Your task to perform on an android device: delete a single message in the gmail app Image 0: 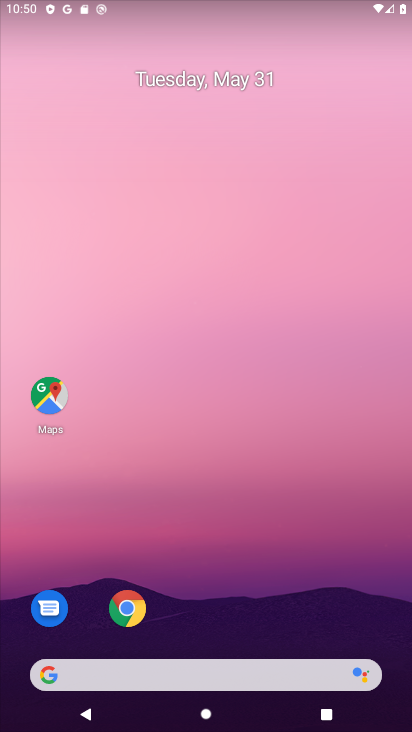
Step 0: drag from (335, 635) to (271, 119)
Your task to perform on an android device: delete a single message in the gmail app Image 1: 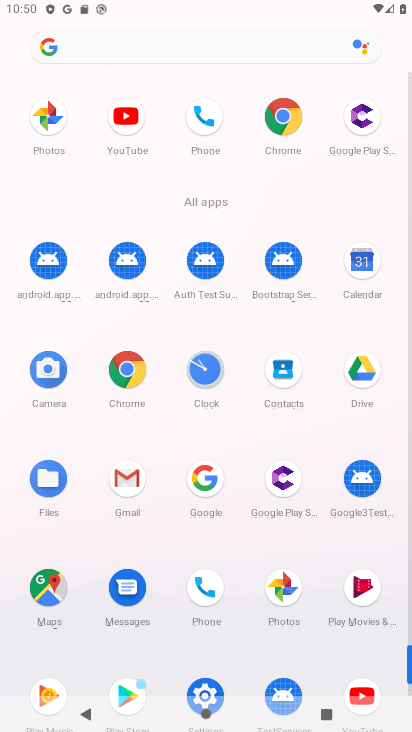
Step 1: click (120, 484)
Your task to perform on an android device: delete a single message in the gmail app Image 2: 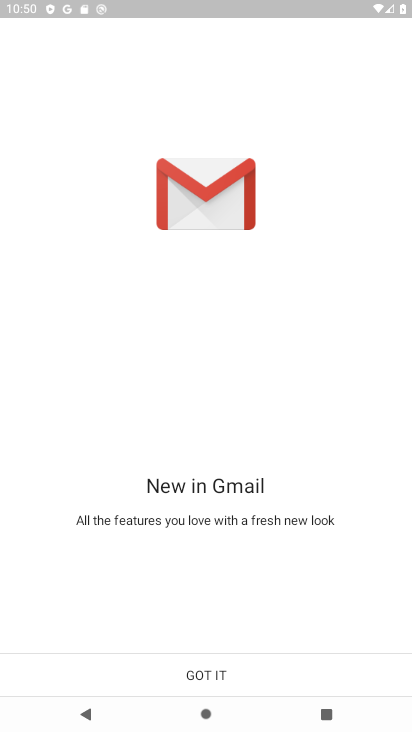
Step 2: click (162, 661)
Your task to perform on an android device: delete a single message in the gmail app Image 3: 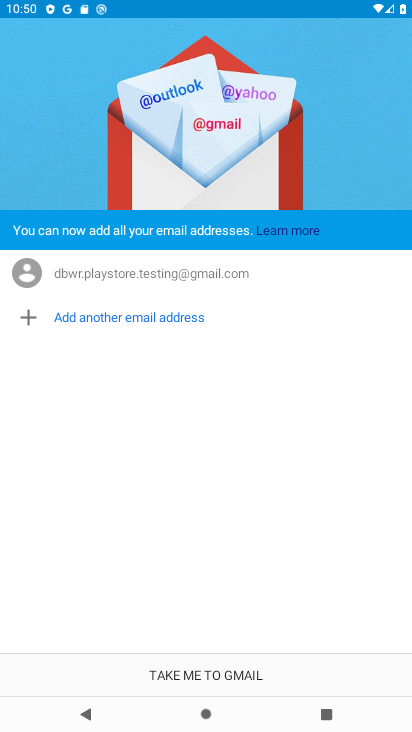
Step 3: click (162, 661)
Your task to perform on an android device: delete a single message in the gmail app Image 4: 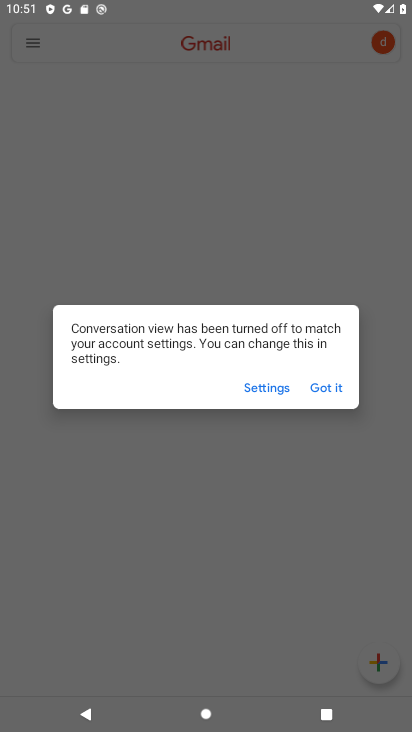
Step 4: click (324, 391)
Your task to perform on an android device: delete a single message in the gmail app Image 5: 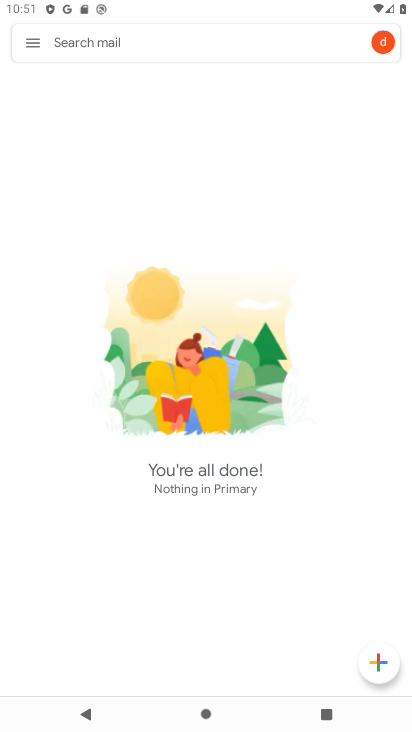
Step 5: click (23, 48)
Your task to perform on an android device: delete a single message in the gmail app Image 6: 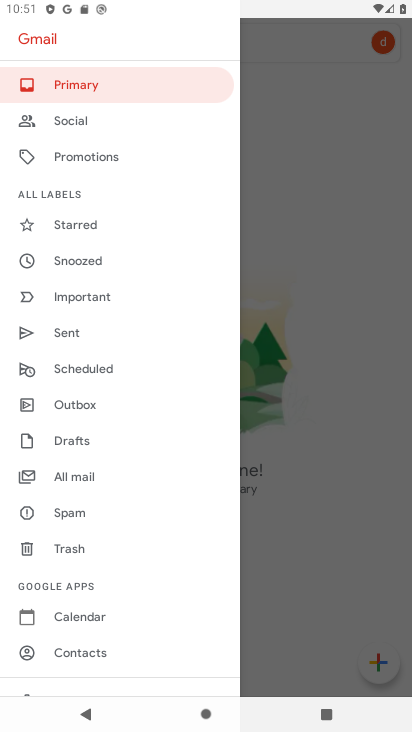
Step 6: task complete